Your task to perform on an android device: change timer sound Image 0: 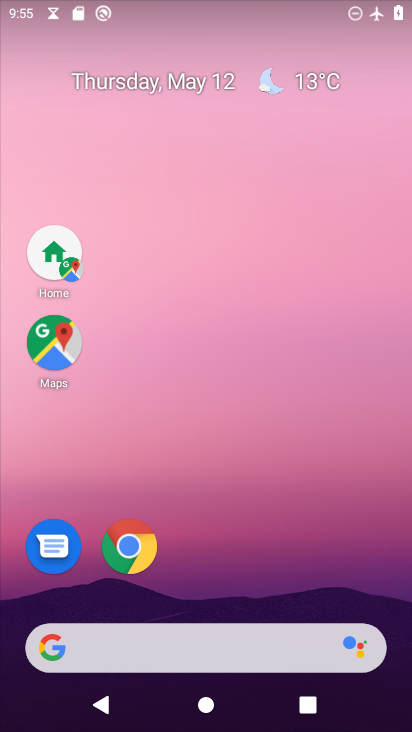
Step 0: drag from (165, 651) to (306, 231)
Your task to perform on an android device: change timer sound Image 1: 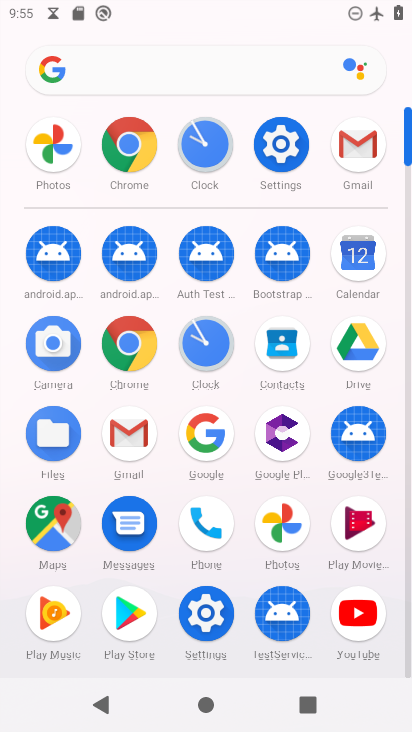
Step 1: click (213, 349)
Your task to perform on an android device: change timer sound Image 2: 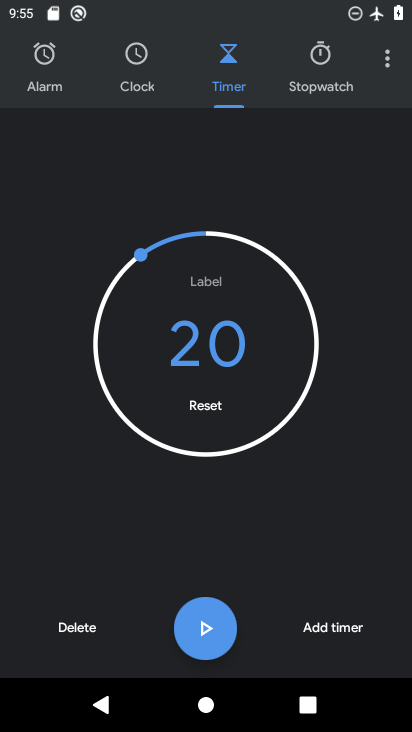
Step 2: click (386, 64)
Your task to perform on an android device: change timer sound Image 3: 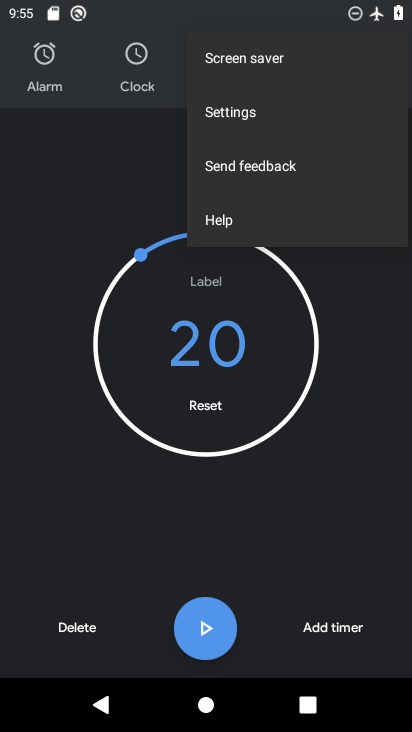
Step 3: click (260, 118)
Your task to perform on an android device: change timer sound Image 4: 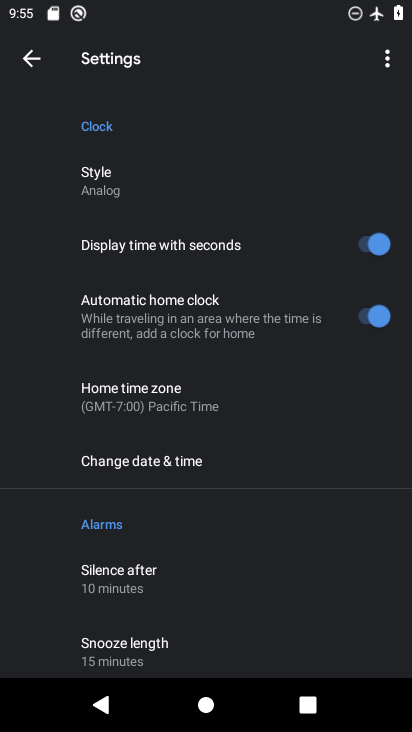
Step 4: drag from (214, 597) to (360, 93)
Your task to perform on an android device: change timer sound Image 5: 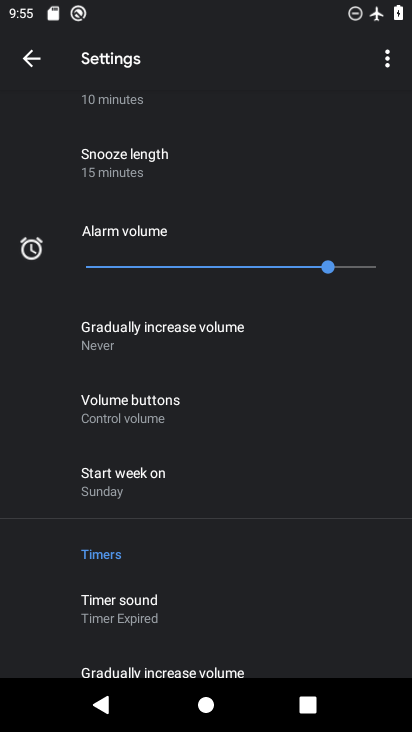
Step 5: click (146, 600)
Your task to perform on an android device: change timer sound Image 6: 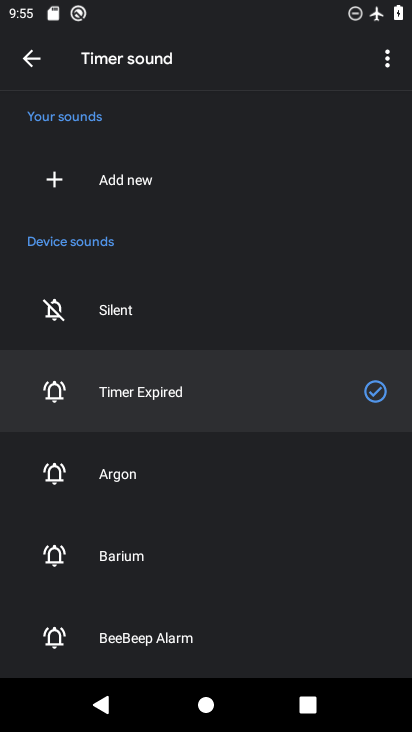
Step 6: click (129, 482)
Your task to perform on an android device: change timer sound Image 7: 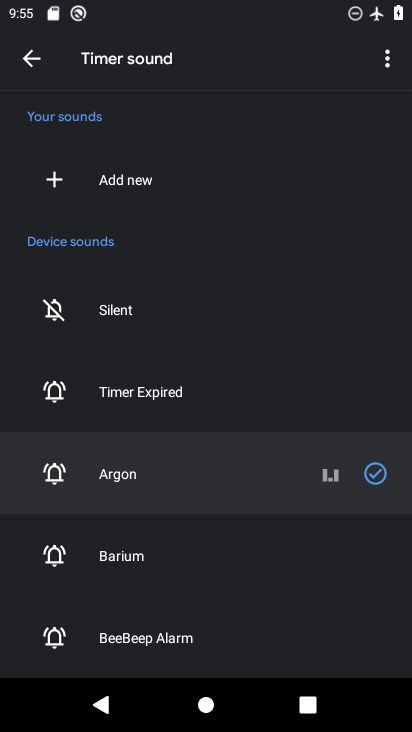
Step 7: task complete